Your task to perform on an android device: Open internet settings Image 0: 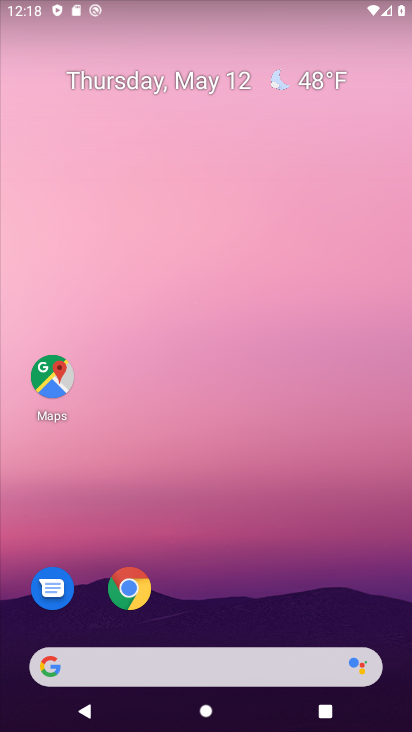
Step 0: drag from (378, 588) to (153, 104)
Your task to perform on an android device: Open internet settings Image 1: 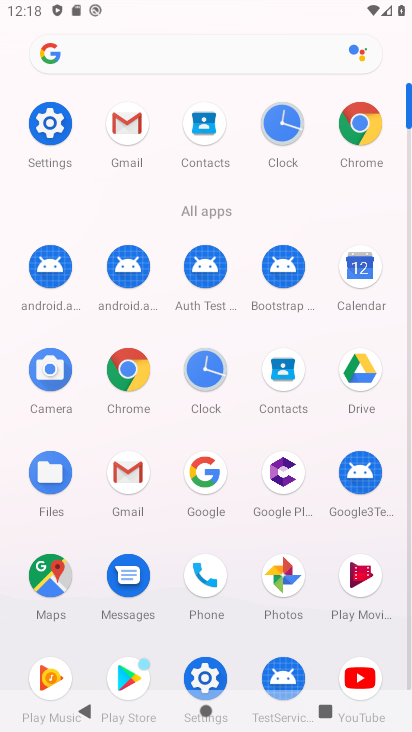
Step 1: click (59, 132)
Your task to perform on an android device: Open internet settings Image 2: 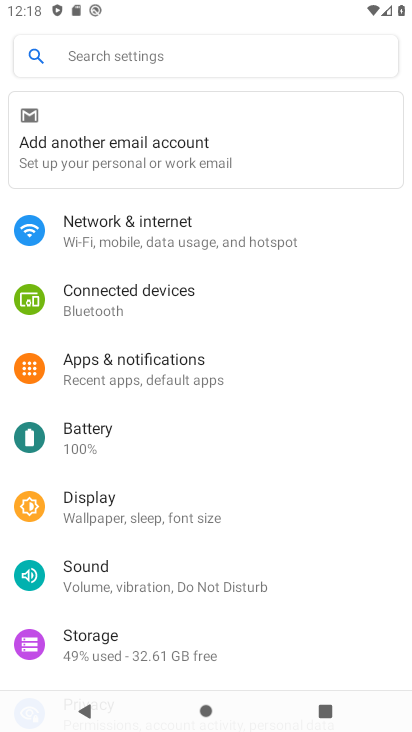
Step 2: click (146, 230)
Your task to perform on an android device: Open internet settings Image 3: 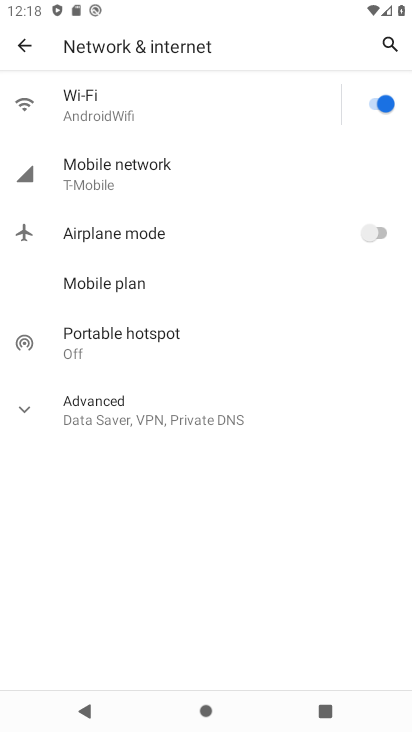
Step 3: task complete